Your task to perform on an android device: toggle sleep mode Image 0: 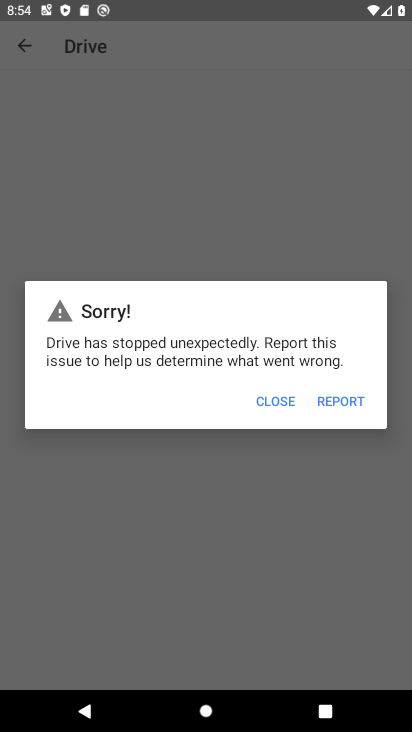
Step 0: click (275, 392)
Your task to perform on an android device: toggle sleep mode Image 1: 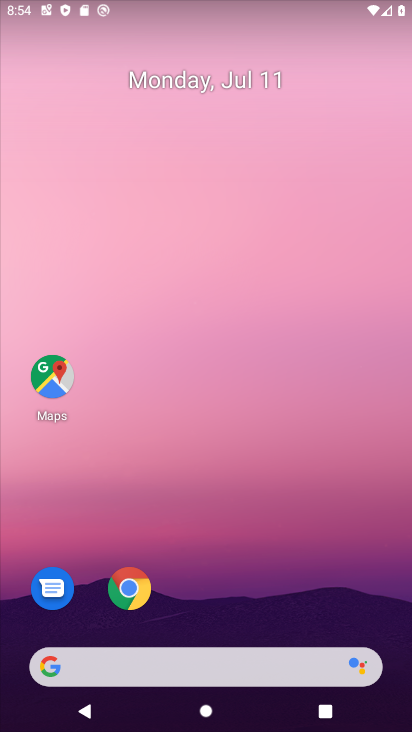
Step 1: drag from (209, 638) to (285, 15)
Your task to perform on an android device: toggle sleep mode Image 2: 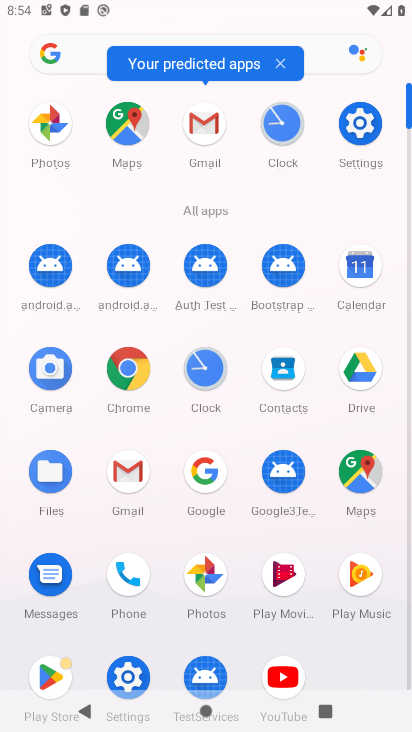
Step 2: click (365, 127)
Your task to perform on an android device: toggle sleep mode Image 3: 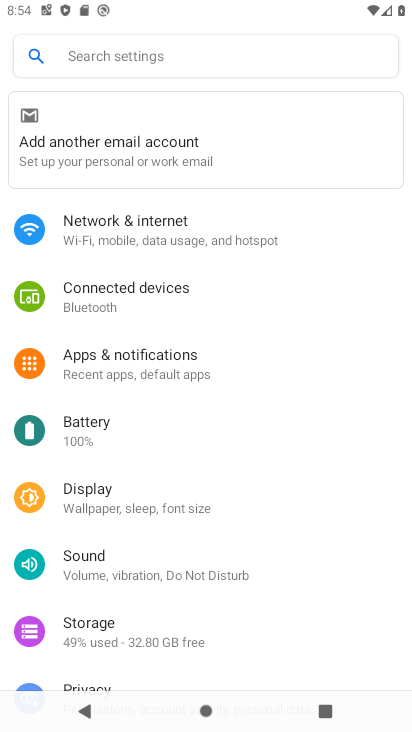
Step 3: click (142, 51)
Your task to perform on an android device: toggle sleep mode Image 4: 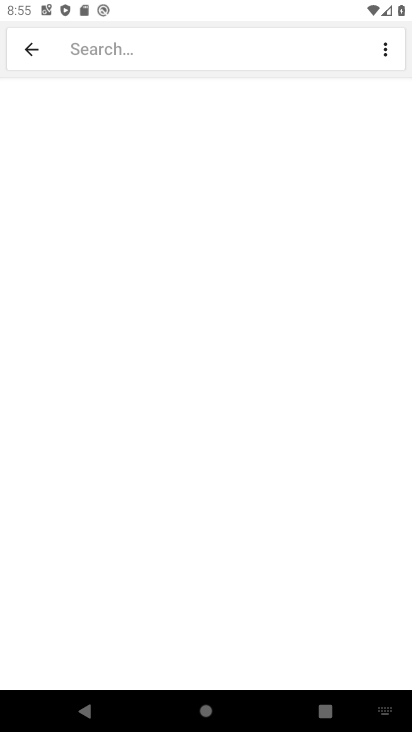
Step 4: type "sleep mode"
Your task to perform on an android device: toggle sleep mode Image 5: 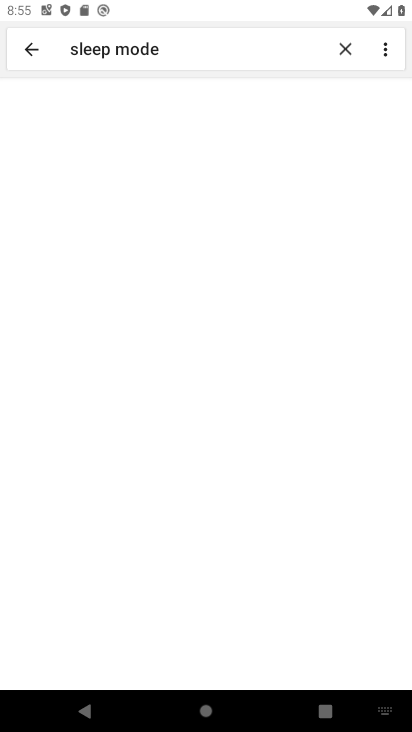
Step 5: task complete